Your task to perform on an android device: Go to notification settings Image 0: 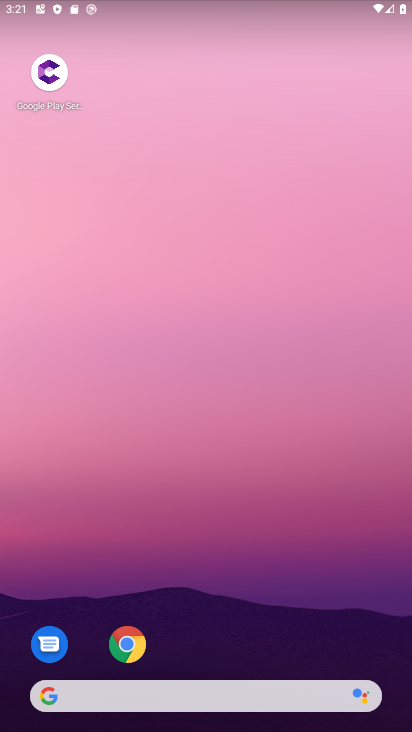
Step 0: drag from (219, 656) to (306, 150)
Your task to perform on an android device: Go to notification settings Image 1: 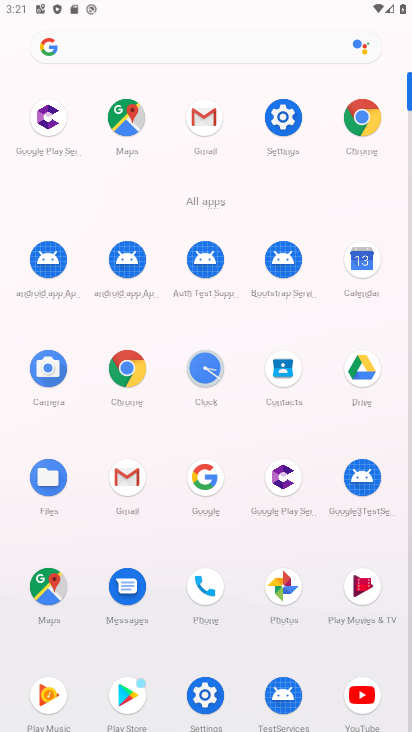
Step 1: click (206, 700)
Your task to perform on an android device: Go to notification settings Image 2: 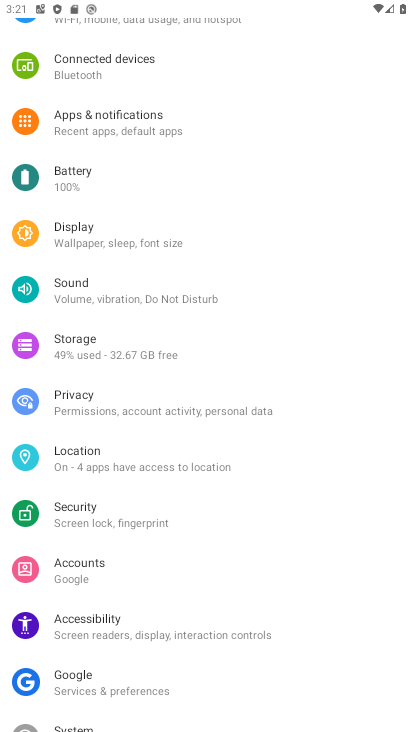
Step 2: click (151, 124)
Your task to perform on an android device: Go to notification settings Image 3: 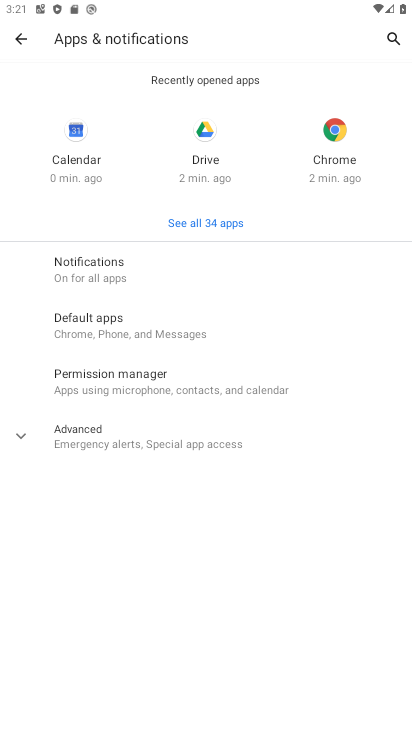
Step 3: click (148, 257)
Your task to perform on an android device: Go to notification settings Image 4: 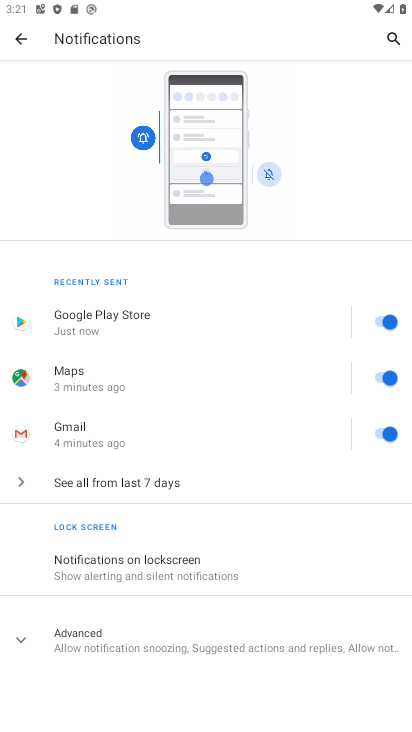
Step 4: task complete